Your task to perform on an android device: open wifi settings Image 0: 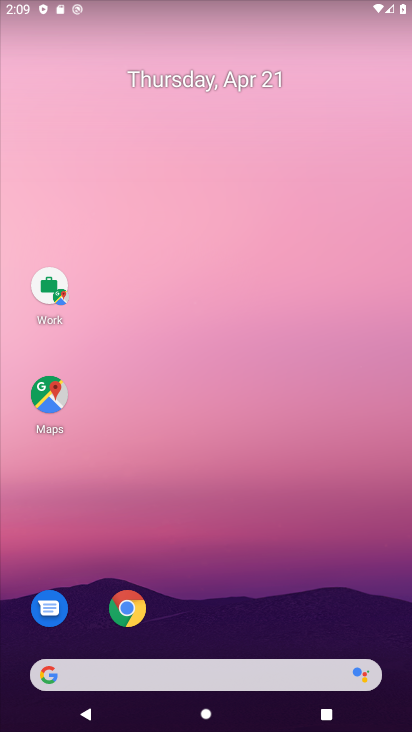
Step 0: drag from (240, 330) to (286, 130)
Your task to perform on an android device: open wifi settings Image 1: 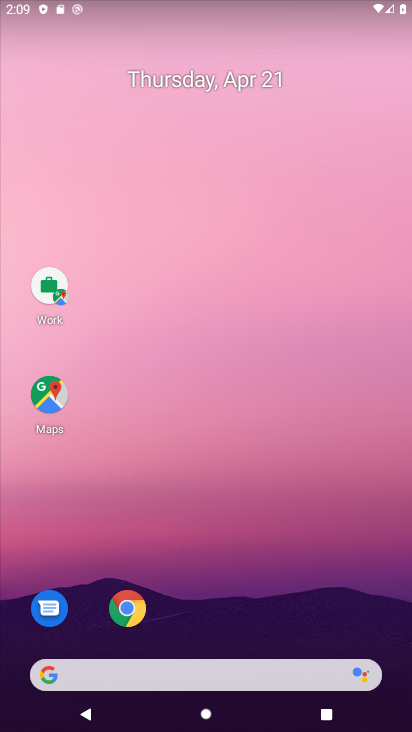
Step 1: drag from (173, 456) to (216, 169)
Your task to perform on an android device: open wifi settings Image 2: 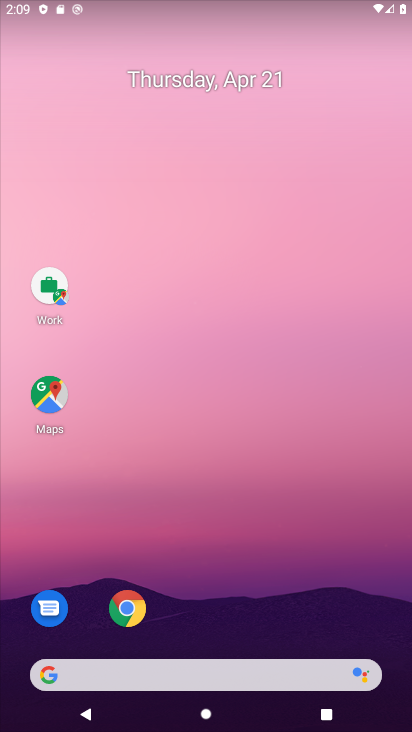
Step 2: drag from (253, 579) to (215, 147)
Your task to perform on an android device: open wifi settings Image 3: 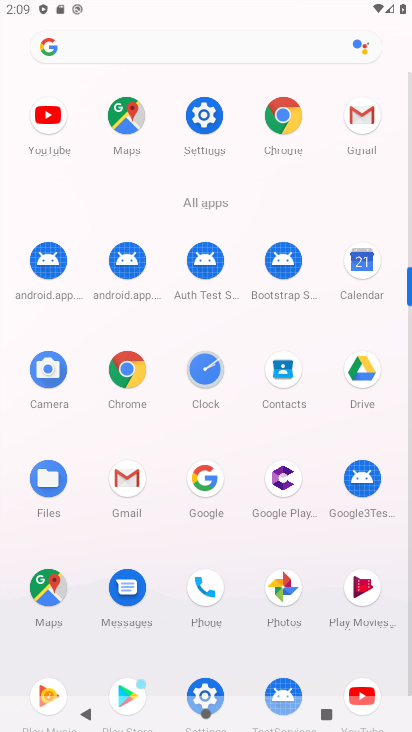
Step 3: click (199, 108)
Your task to perform on an android device: open wifi settings Image 4: 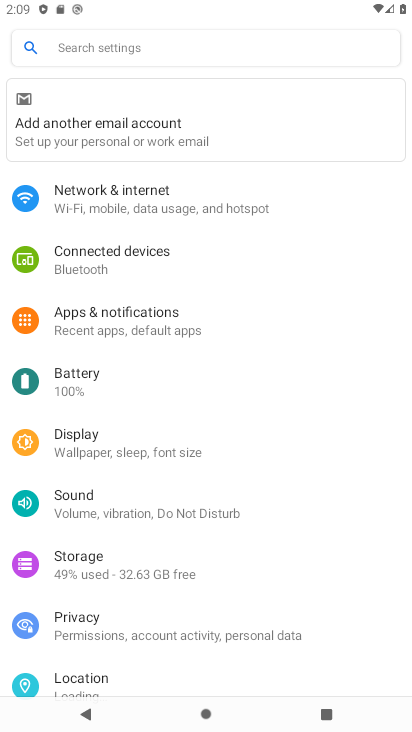
Step 4: click (110, 213)
Your task to perform on an android device: open wifi settings Image 5: 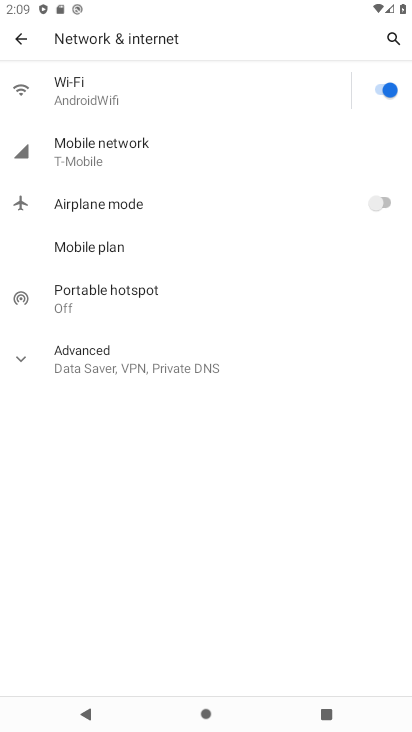
Step 5: click (85, 95)
Your task to perform on an android device: open wifi settings Image 6: 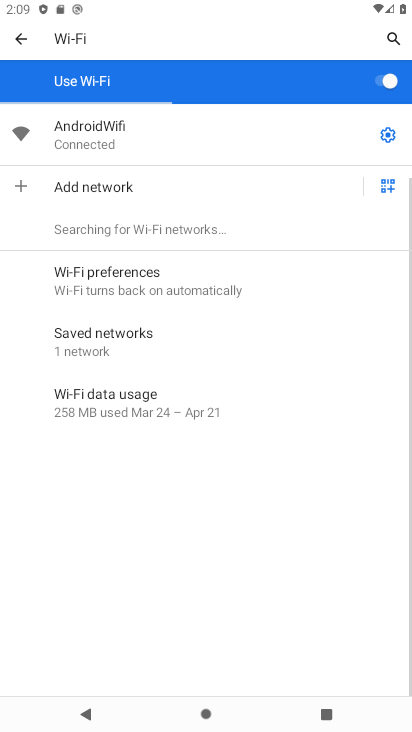
Step 6: click (116, 130)
Your task to perform on an android device: open wifi settings Image 7: 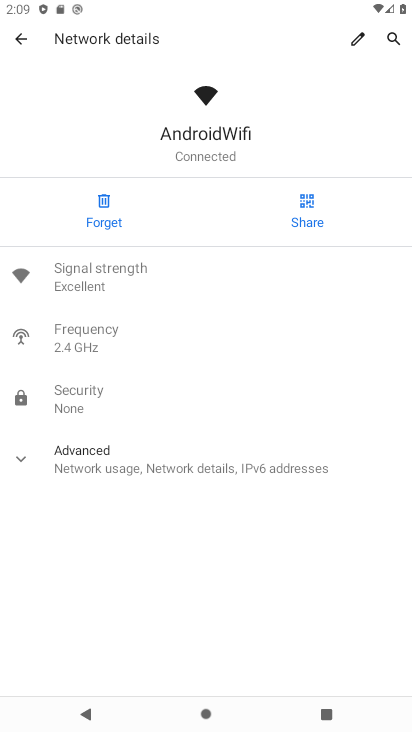
Step 7: task complete